Your task to perform on an android device: Go to CNN.com Image 0: 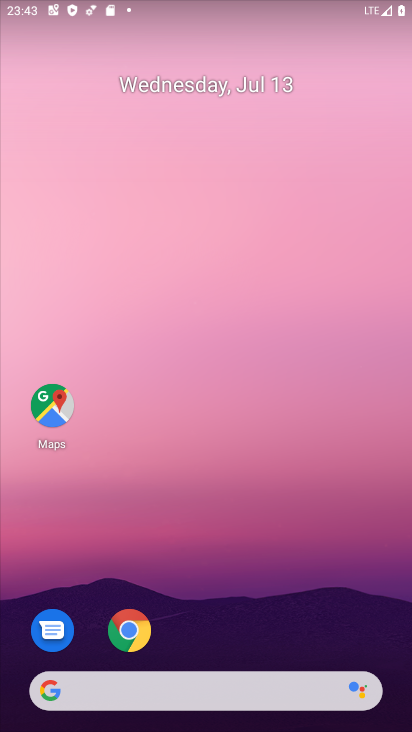
Step 0: drag from (285, 592) to (285, 142)
Your task to perform on an android device: Go to CNN.com Image 1: 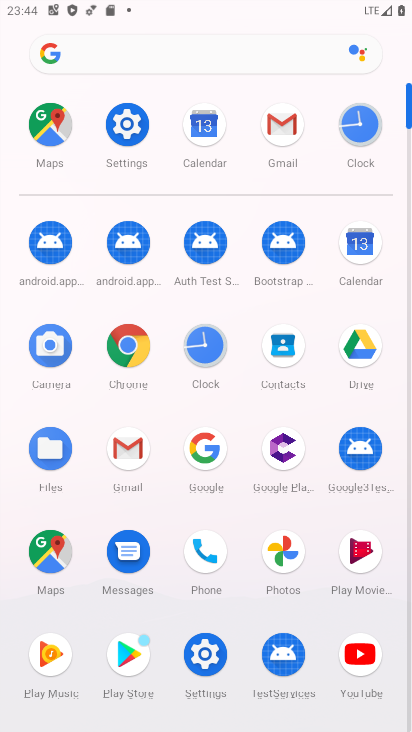
Step 1: click (121, 340)
Your task to perform on an android device: Go to CNN.com Image 2: 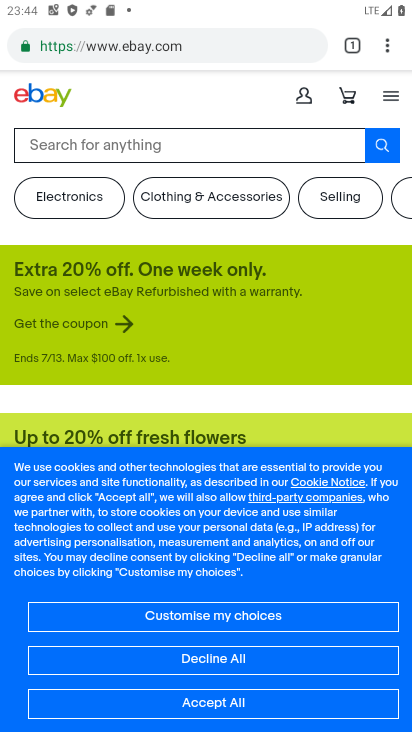
Step 2: click (138, 50)
Your task to perform on an android device: Go to CNN.com Image 3: 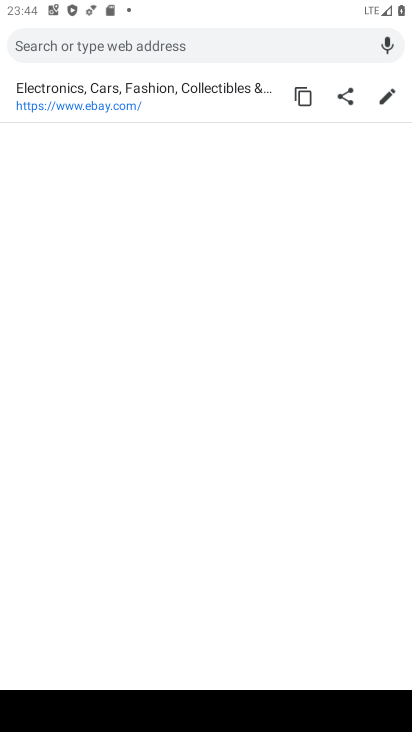
Step 3: type "cnn.com"
Your task to perform on an android device: Go to CNN.com Image 4: 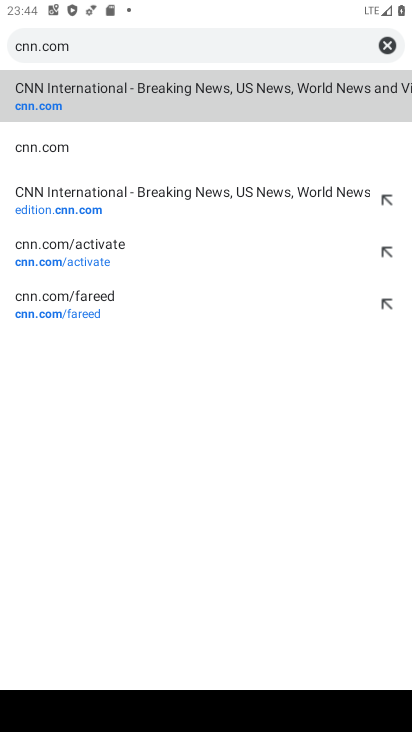
Step 4: click (157, 107)
Your task to perform on an android device: Go to CNN.com Image 5: 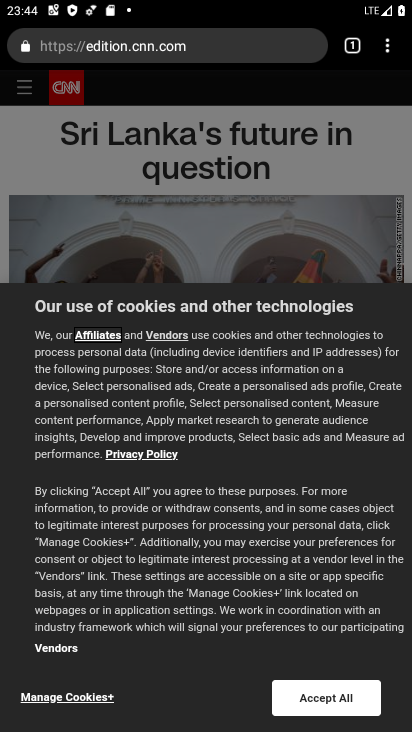
Step 5: task complete